Your task to perform on an android device: Go to Yahoo.com Image 0: 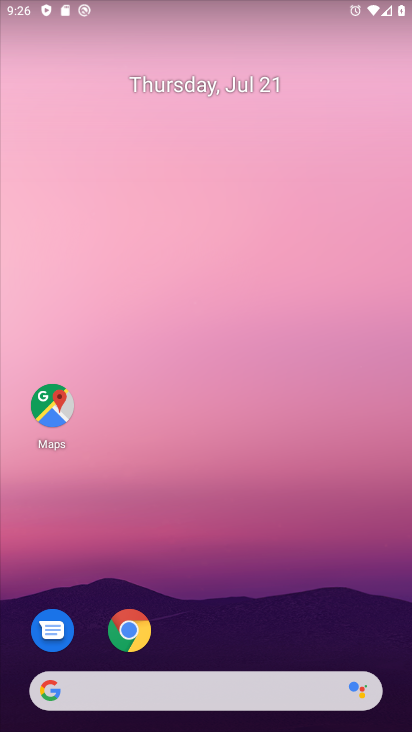
Step 0: click (122, 634)
Your task to perform on an android device: Go to Yahoo.com Image 1: 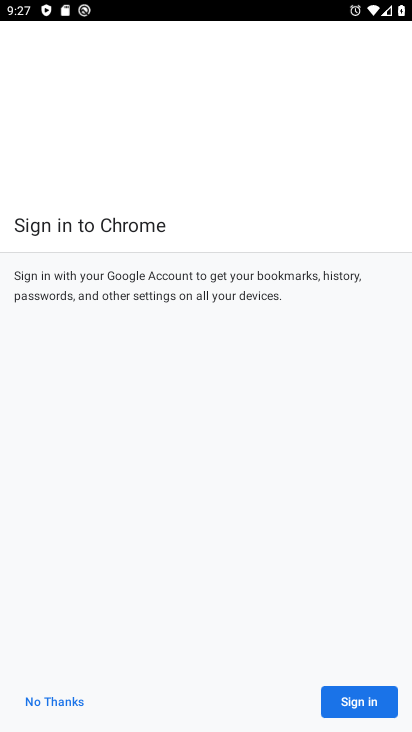
Step 1: task complete